Your task to perform on an android device: Set the phone to "Do not disturb". Image 0: 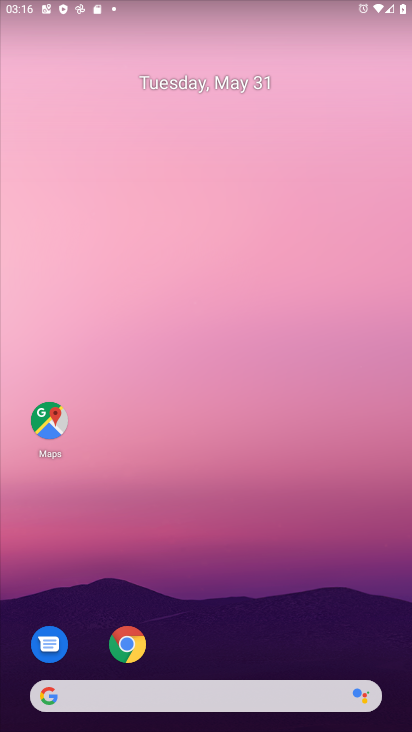
Step 0: drag from (273, 6) to (277, 499)
Your task to perform on an android device: Set the phone to "Do not disturb". Image 1: 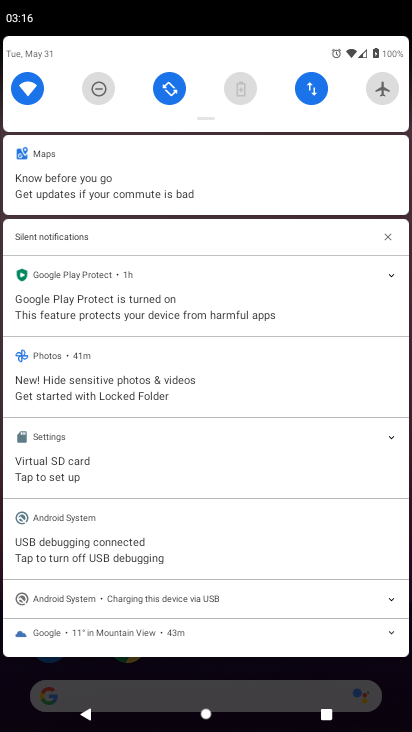
Step 1: click (103, 90)
Your task to perform on an android device: Set the phone to "Do not disturb". Image 2: 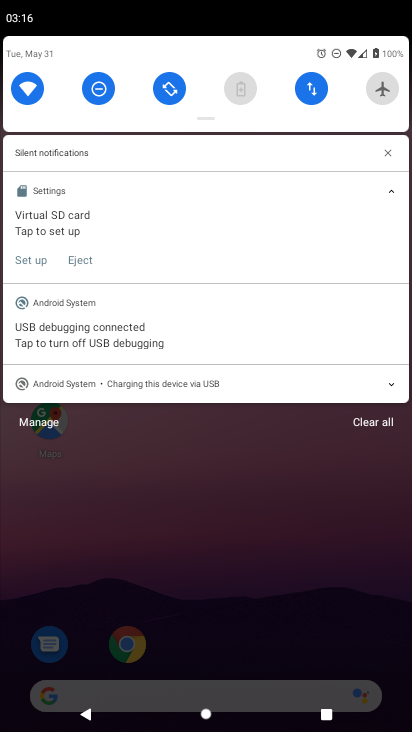
Step 2: task complete